Your task to perform on an android device: turn off priority inbox in the gmail app Image 0: 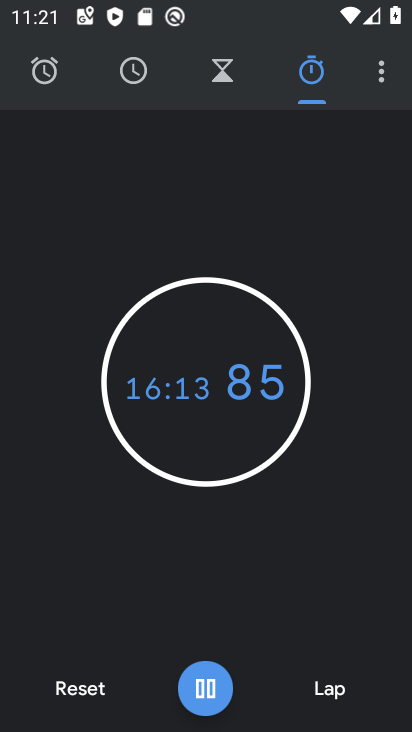
Step 0: press home button
Your task to perform on an android device: turn off priority inbox in the gmail app Image 1: 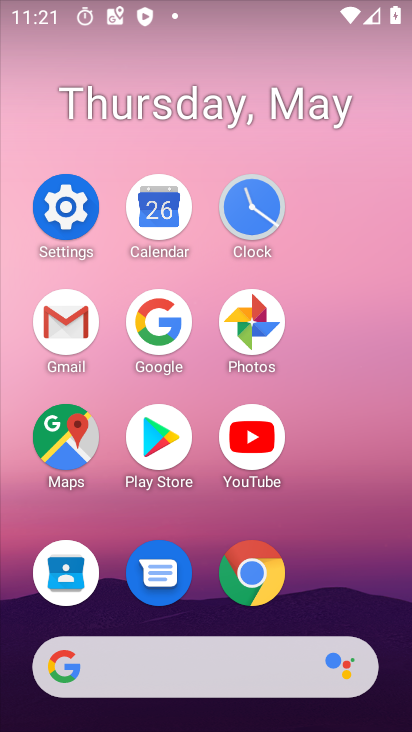
Step 1: click (75, 333)
Your task to perform on an android device: turn off priority inbox in the gmail app Image 2: 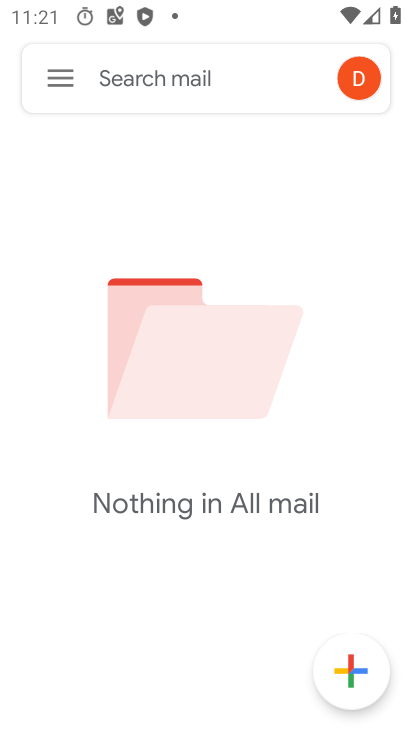
Step 2: click (65, 69)
Your task to perform on an android device: turn off priority inbox in the gmail app Image 3: 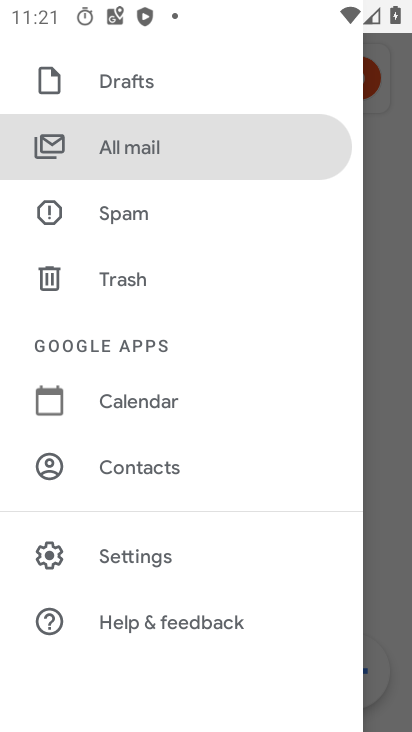
Step 3: click (151, 539)
Your task to perform on an android device: turn off priority inbox in the gmail app Image 4: 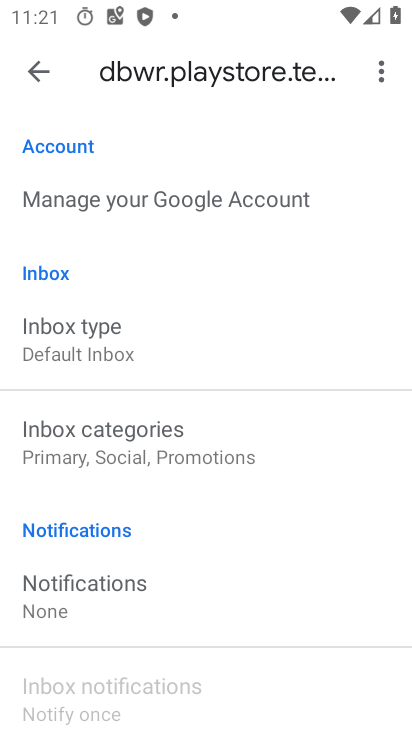
Step 4: task complete